Your task to perform on an android device: Open Yahoo.com Image 0: 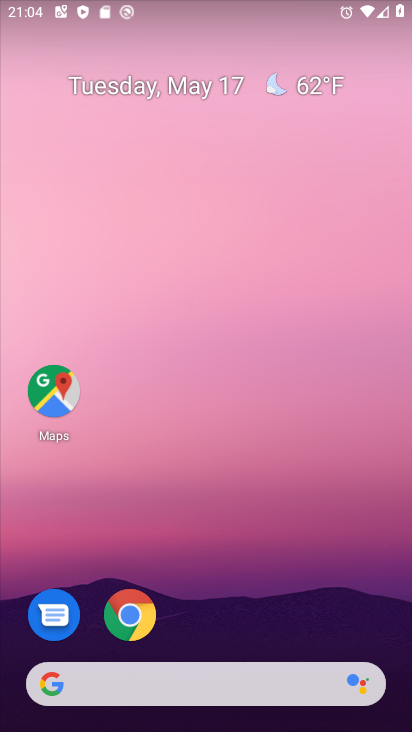
Step 0: click (124, 616)
Your task to perform on an android device: Open Yahoo.com Image 1: 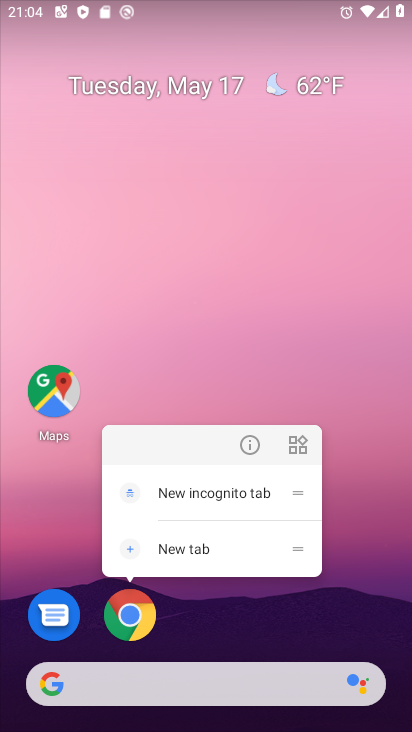
Step 1: click (142, 613)
Your task to perform on an android device: Open Yahoo.com Image 2: 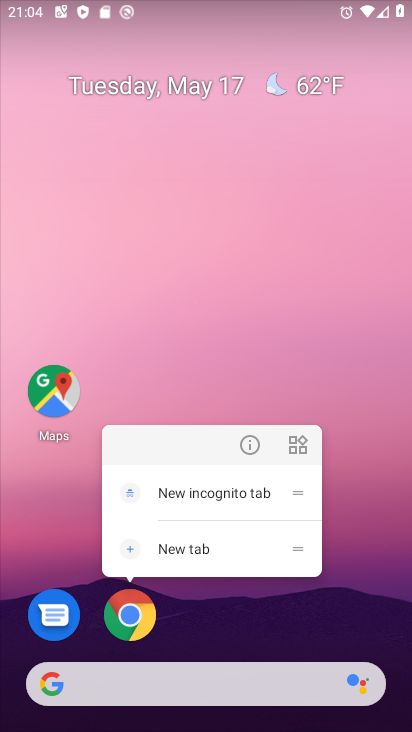
Step 2: click (137, 620)
Your task to perform on an android device: Open Yahoo.com Image 3: 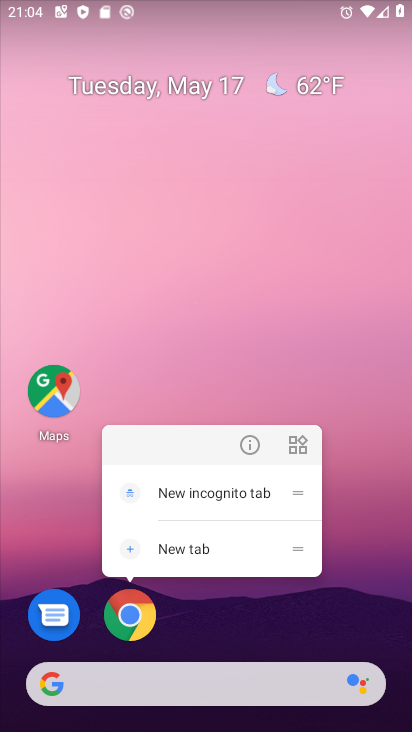
Step 3: click (137, 620)
Your task to perform on an android device: Open Yahoo.com Image 4: 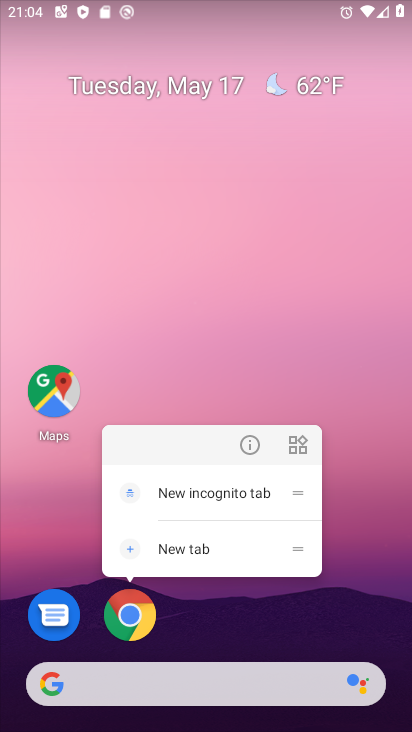
Step 4: drag from (264, 631) to (271, 117)
Your task to perform on an android device: Open Yahoo.com Image 5: 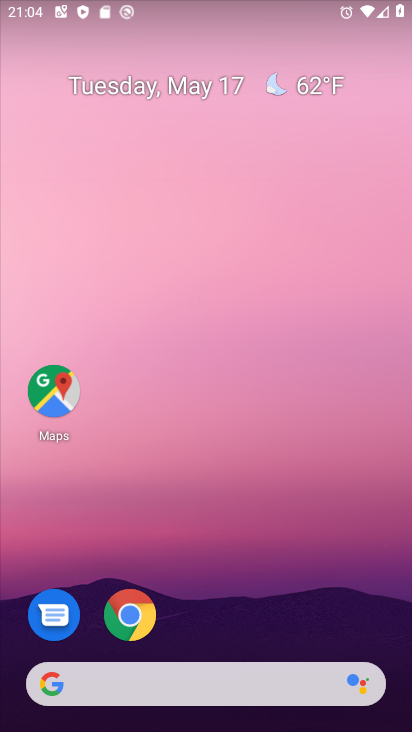
Step 5: drag from (292, 585) to (325, 125)
Your task to perform on an android device: Open Yahoo.com Image 6: 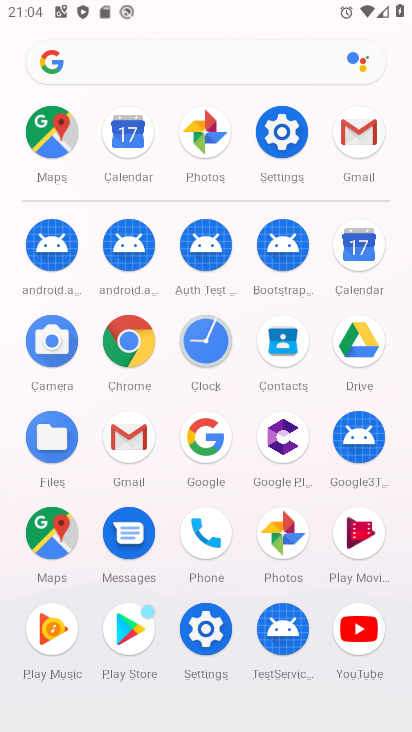
Step 6: click (141, 323)
Your task to perform on an android device: Open Yahoo.com Image 7: 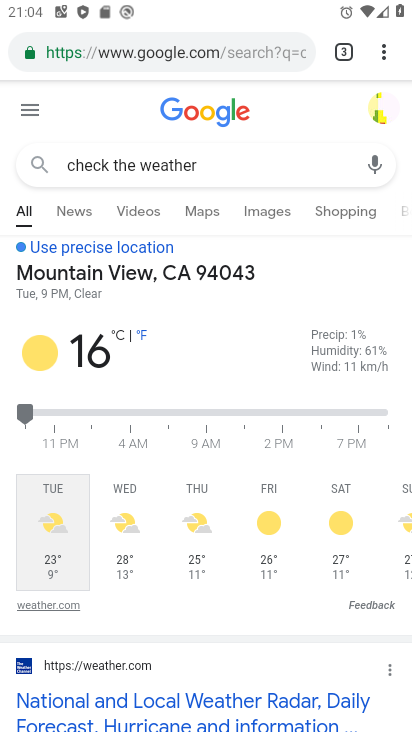
Step 7: click (193, 52)
Your task to perform on an android device: Open Yahoo.com Image 8: 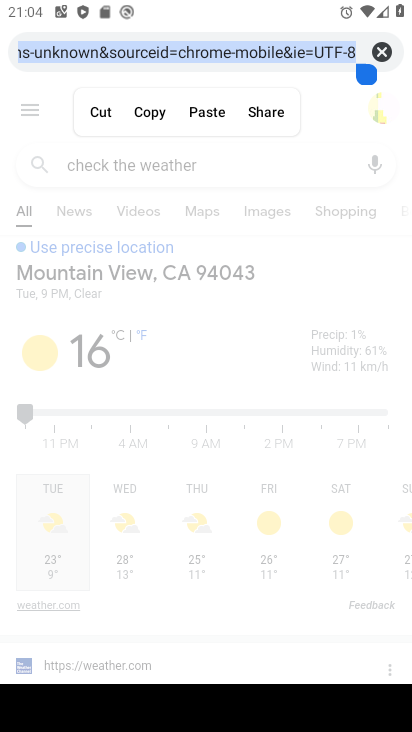
Step 8: click (384, 52)
Your task to perform on an android device: Open Yahoo.com Image 9: 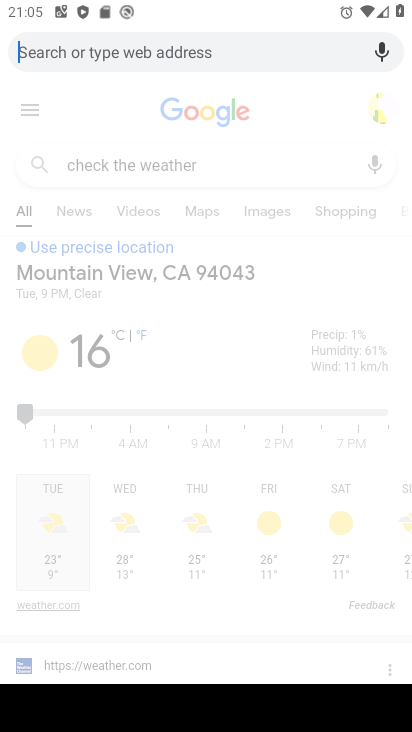
Step 9: type "Yahoo.com"
Your task to perform on an android device: Open Yahoo.com Image 10: 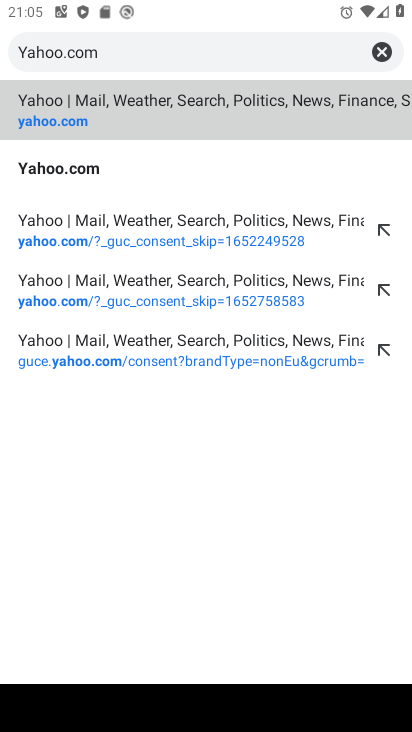
Step 10: click (47, 117)
Your task to perform on an android device: Open Yahoo.com Image 11: 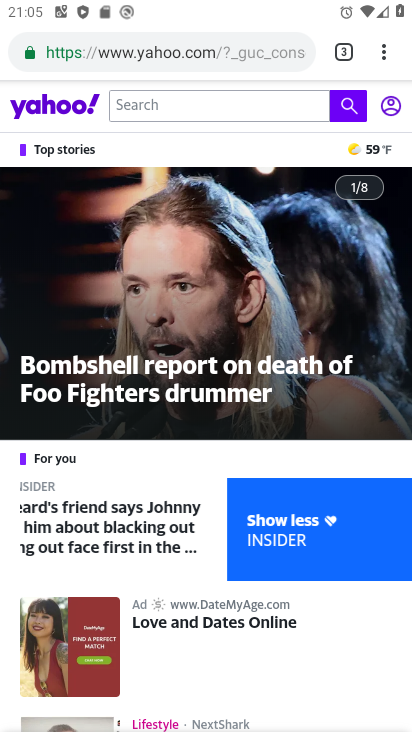
Step 11: task complete